Your task to perform on an android device: change the clock display to show seconds Image 0: 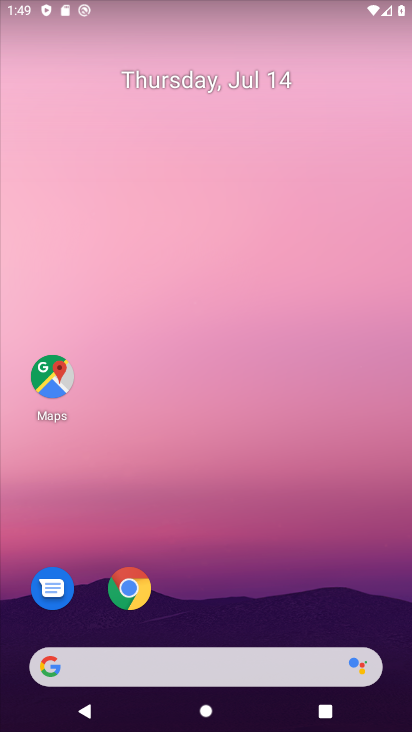
Step 0: drag from (292, 576) to (288, 211)
Your task to perform on an android device: change the clock display to show seconds Image 1: 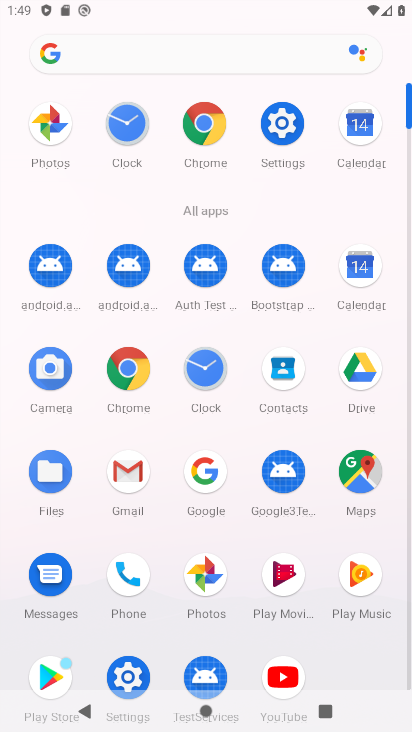
Step 1: click (213, 376)
Your task to perform on an android device: change the clock display to show seconds Image 2: 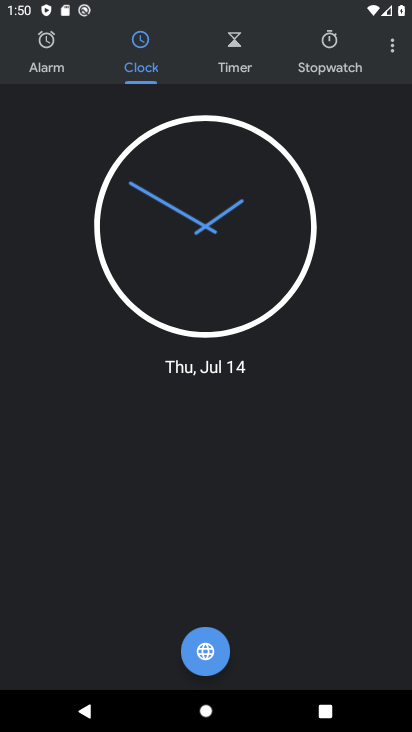
Step 2: click (379, 82)
Your task to perform on an android device: change the clock display to show seconds Image 3: 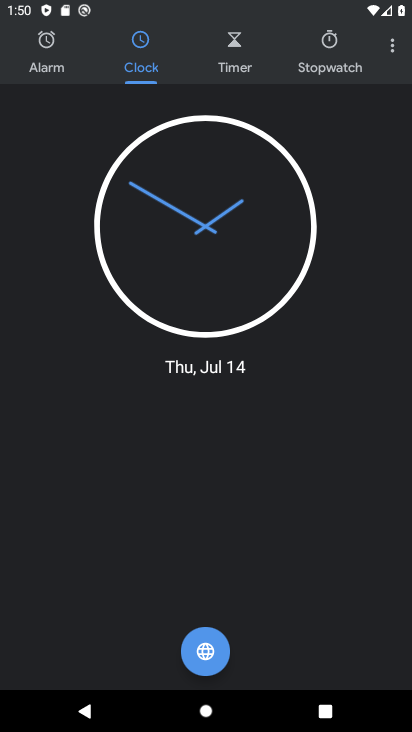
Step 3: click (392, 62)
Your task to perform on an android device: change the clock display to show seconds Image 4: 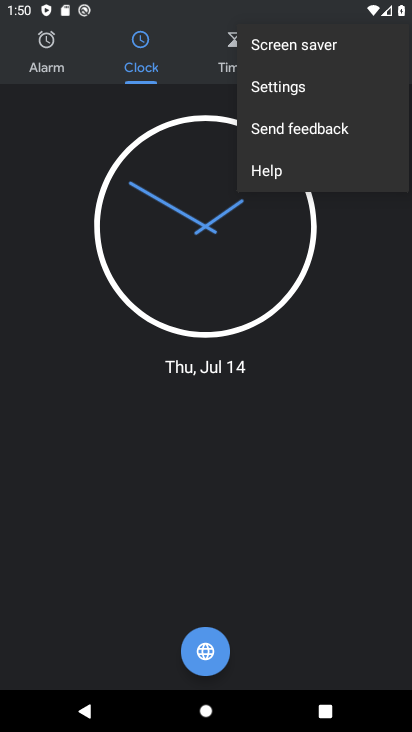
Step 4: click (337, 96)
Your task to perform on an android device: change the clock display to show seconds Image 5: 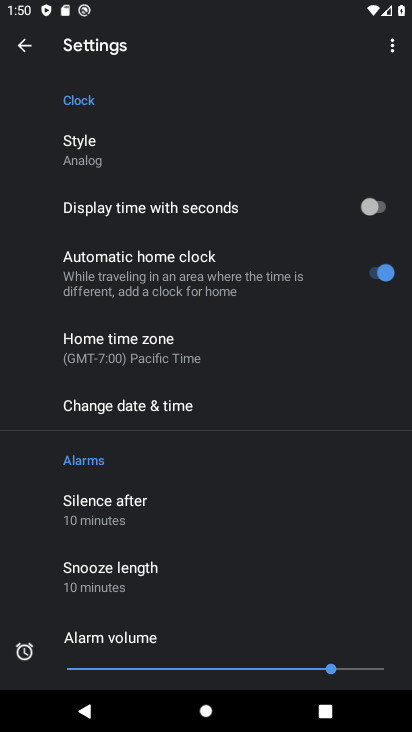
Step 5: click (376, 209)
Your task to perform on an android device: change the clock display to show seconds Image 6: 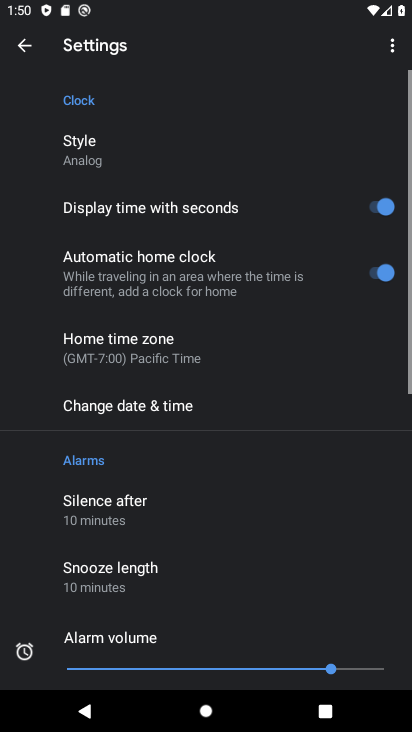
Step 6: task complete